Your task to perform on an android device: Go to Amazon Image 0: 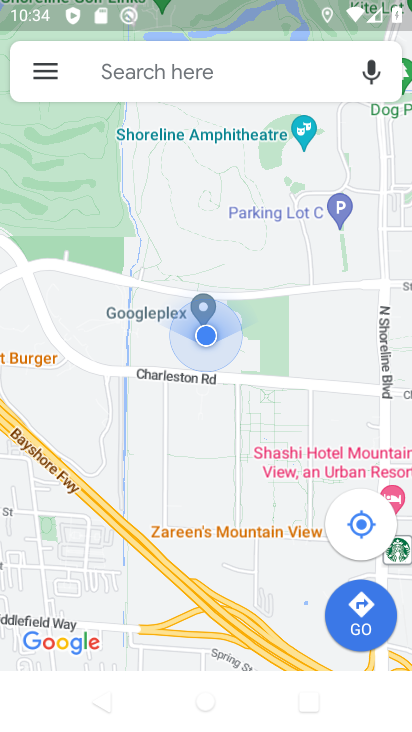
Step 0: press home button
Your task to perform on an android device: Go to Amazon Image 1: 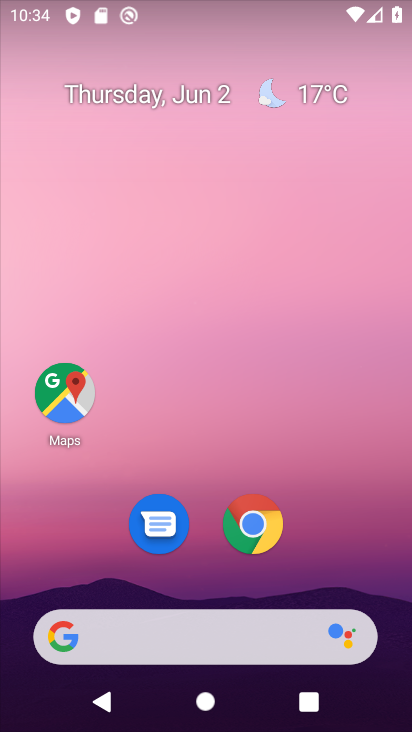
Step 1: drag from (199, 471) to (196, 427)
Your task to perform on an android device: Go to Amazon Image 2: 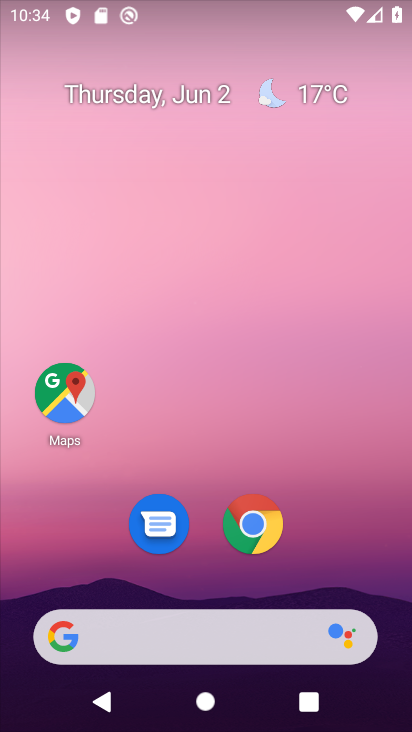
Step 2: click (251, 525)
Your task to perform on an android device: Go to Amazon Image 3: 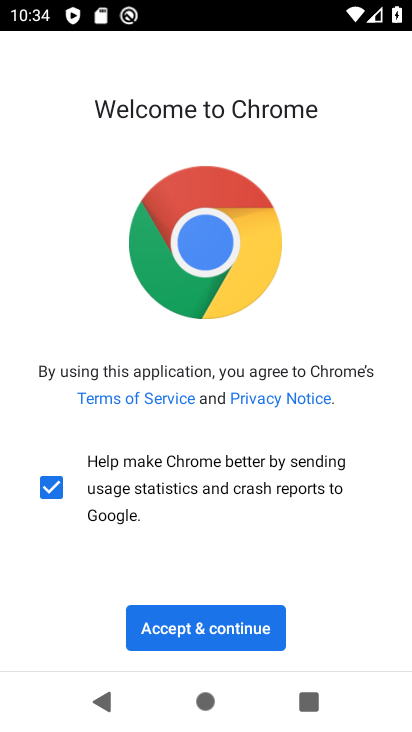
Step 3: click (244, 617)
Your task to perform on an android device: Go to Amazon Image 4: 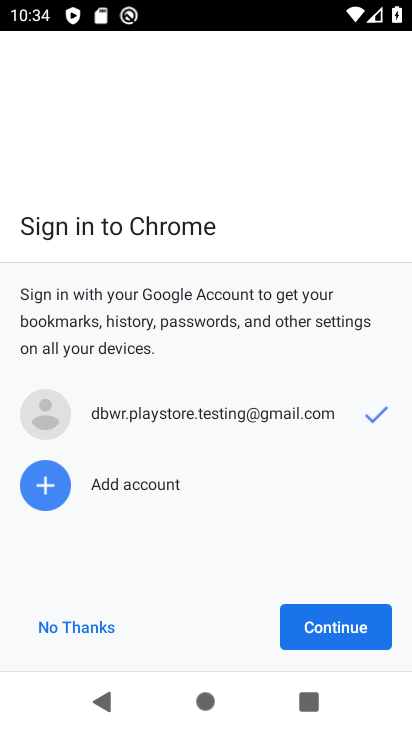
Step 4: click (340, 632)
Your task to perform on an android device: Go to Amazon Image 5: 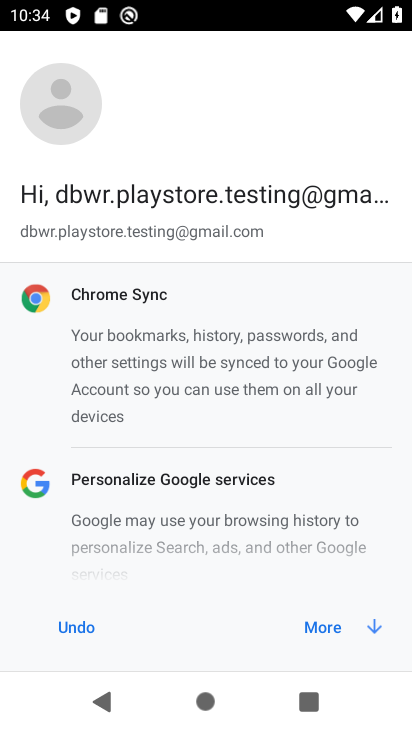
Step 5: click (340, 629)
Your task to perform on an android device: Go to Amazon Image 6: 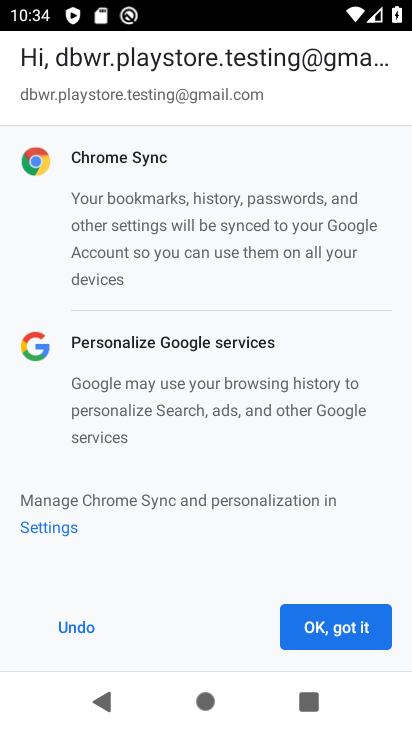
Step 6: click (340, 630)
Your task to perform on an android device: Go to Amazon Image 7: 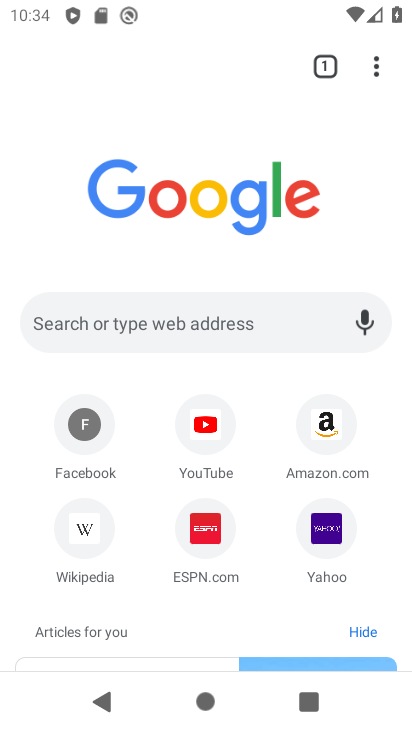
Step 7: click (328, 426)
Your task to perform on an android device: Go to Amazon Image 8: 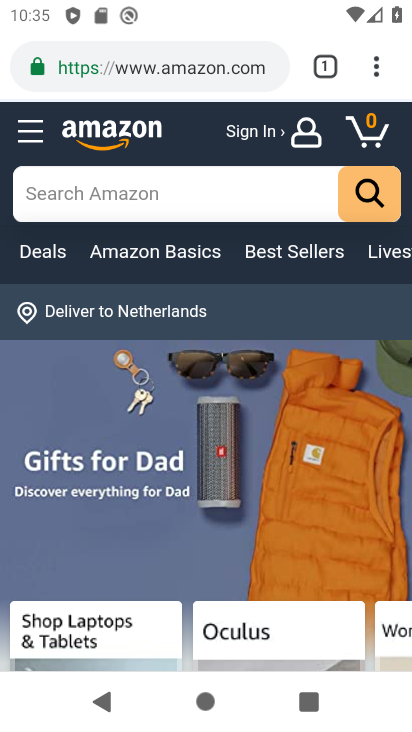
Step 8: task complete